Your task to perform on an android device: Show me recent news Image 0: 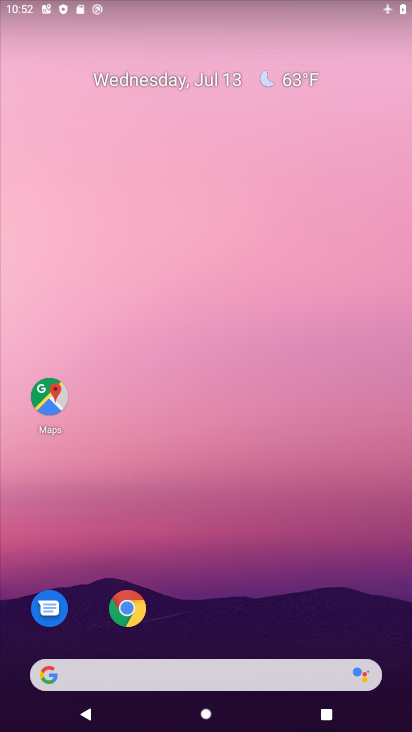
Step 0: drag from (277, 517) to (307, 20)
Your task to perform on an android device: Show me recent news Image 1: 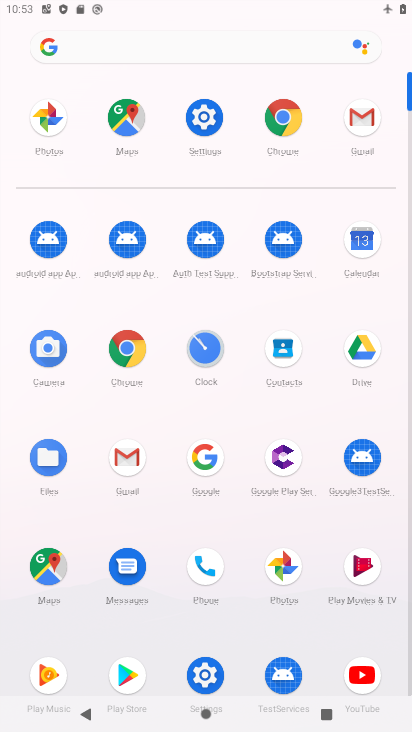
Step 1: click (130, 338)
Your task to perform on an android device: Show me recent news Image 2: 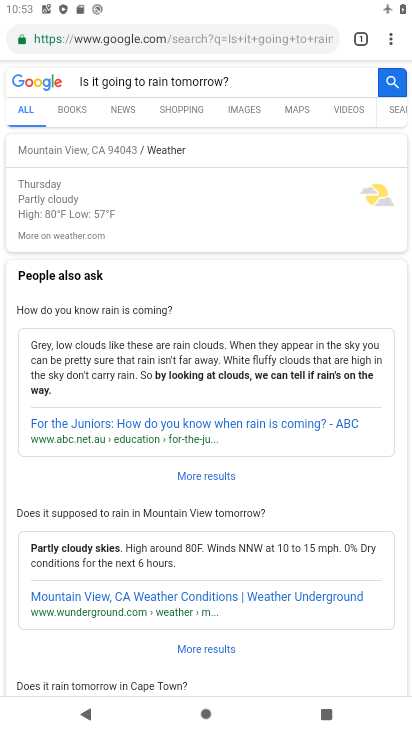
Step 2: click (261, 35)
Your task to perform on an android device: Show me recent news Image 3: 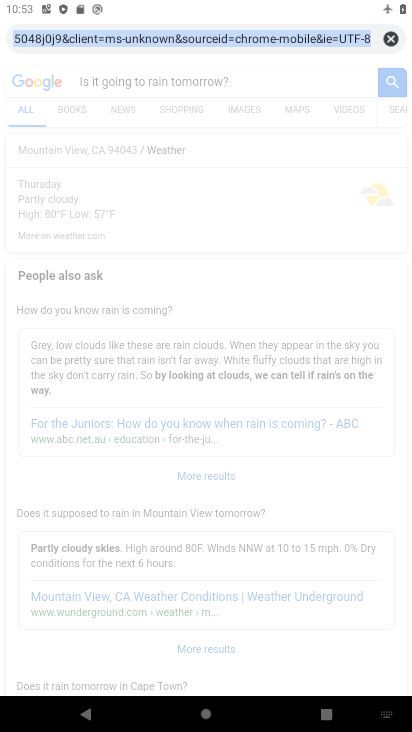
Step 3: click (393, 34)
Your task to perform on an android device: Show me recent news Image 4: 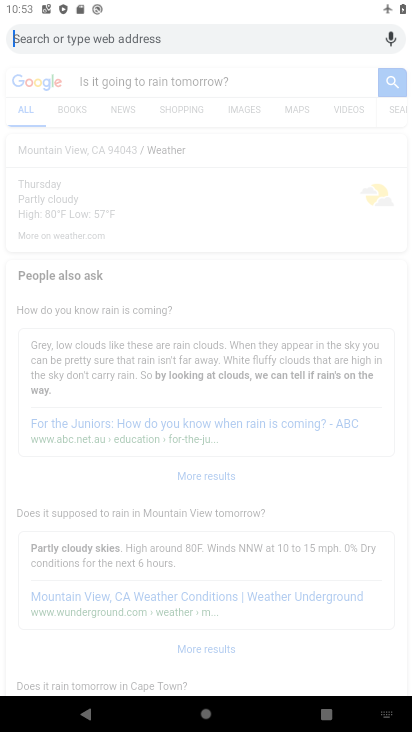
Step 4: type "Show me recent news"
Your task to perform on an android device: Show me recent news Image 5: 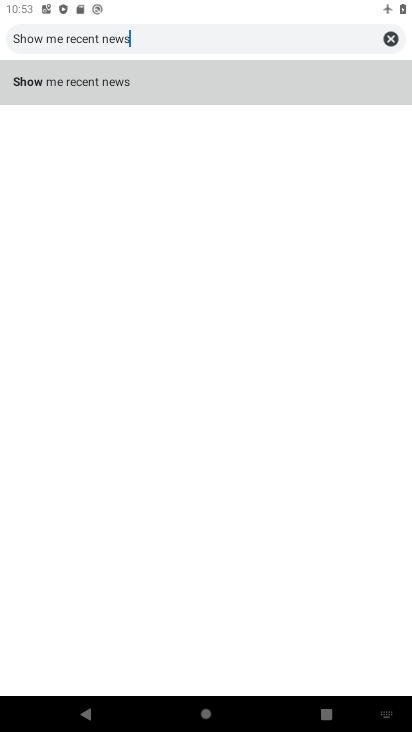
Step 5: click (82, 81)
Your task to perform on an android device: Show me recent news Image 6: 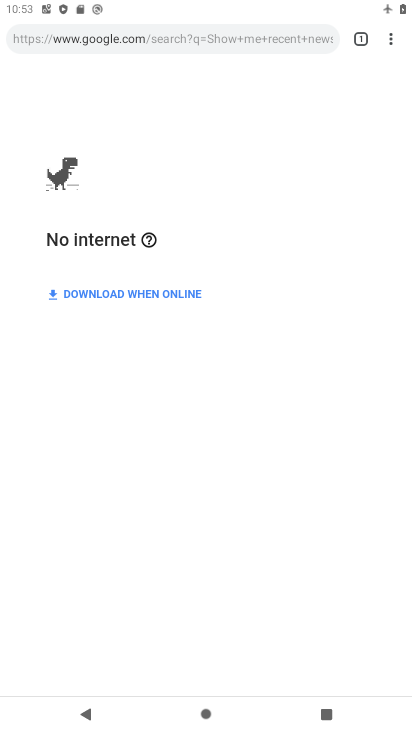
Step 6: drag from (170, 10) to (101, 493)
Your task to perform on an android device: Show me recent news Image 7: 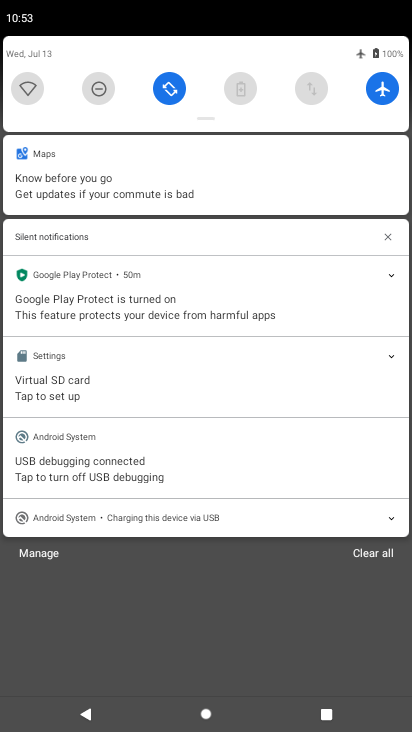
Step 7: click (375, 83)
Your task to perform on an android device: Show me recent news Image 8: 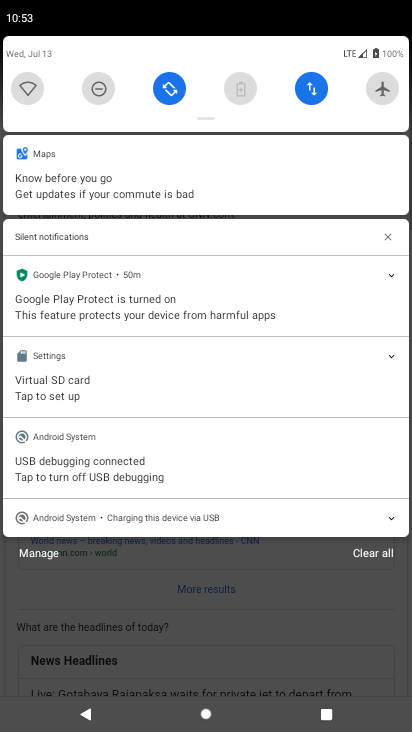
Step 8: click (193, 562)
Your task to perform on an android device: Show me recent news Image 9: 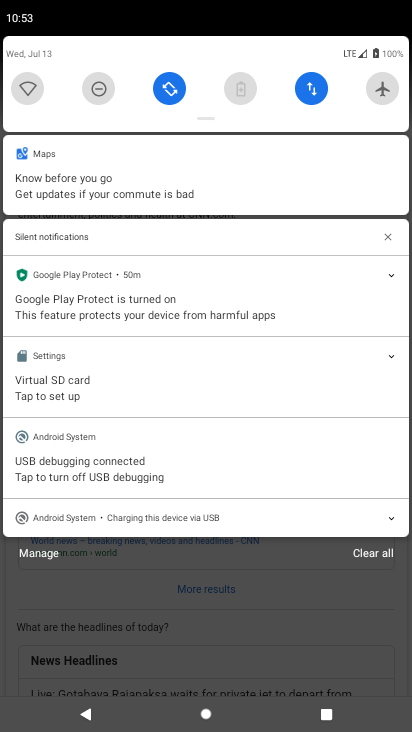
Step 9: click (368, 550)
Your task to perform on an android device: Show me recent news Image 10: 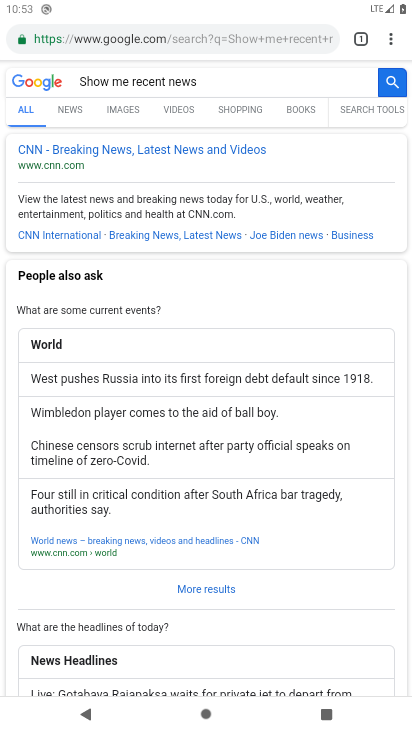
Step 10: click (78, 107)
Your task to perform on an android device: Show me recent news Image 11: 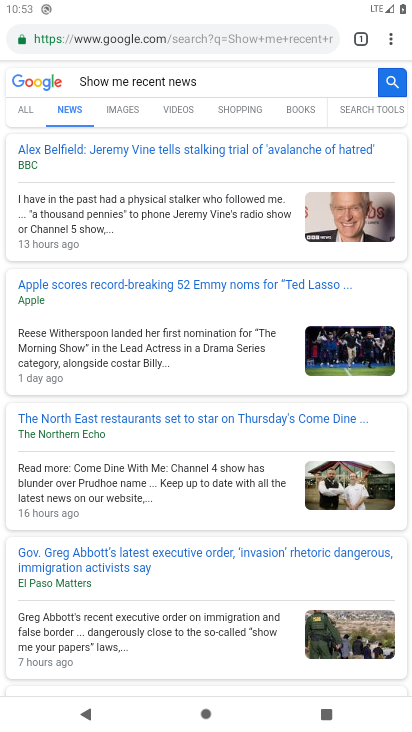
Step 11: task complete